Your task to perform on an android device: manage bookmarks in the chrome app Image 0: 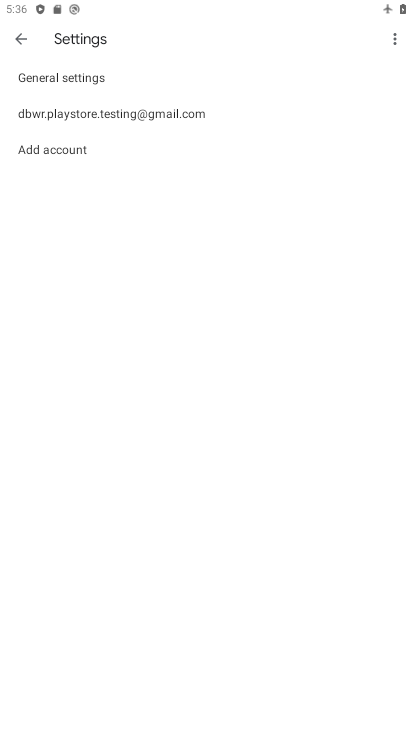
Step 0: press home button
Your task to perform on an android device: manage bookmarks in the chrome app Image 1: 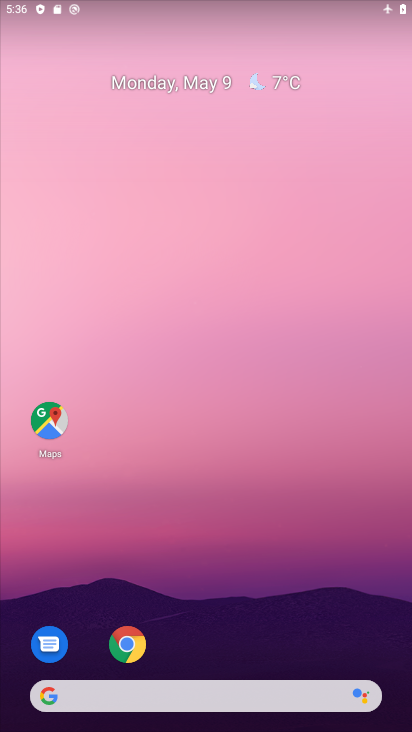
Step 1: click (126, 646)
Your task to perform on an android device: manage bookmarks in the chrome app Image 2: 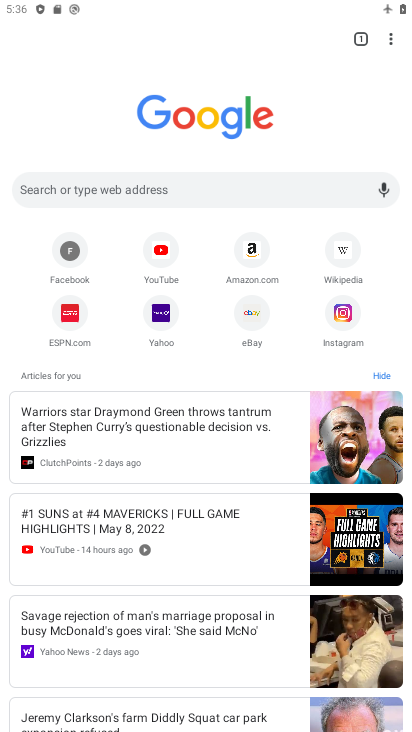
Step 2: click (390, 40)
Your task to perform on an android device: manage bookmarks in the chrome app Image 3: 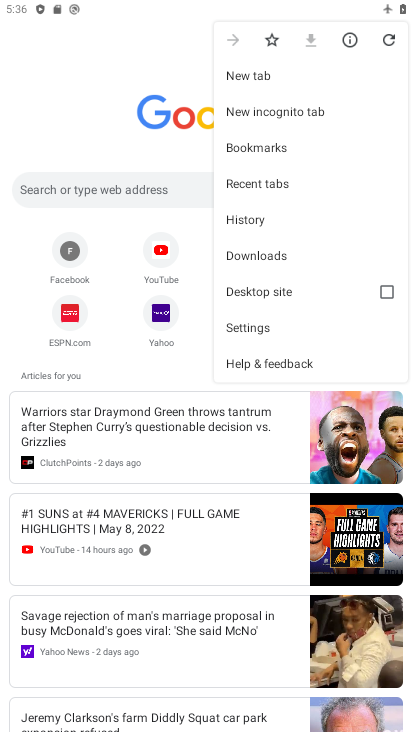
Step 3: click (264, 144)
Your task to perform on an android device: manage bookmarks in the chrome app Image 4: 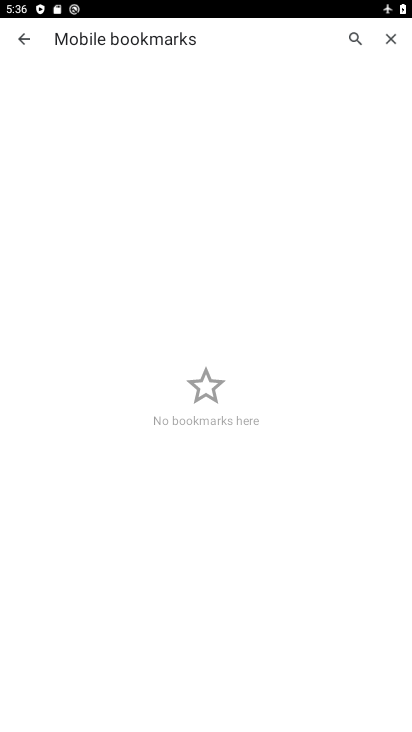
Step 4: task complete